Your task to perform on an android device: Open Google Maps Image 0: 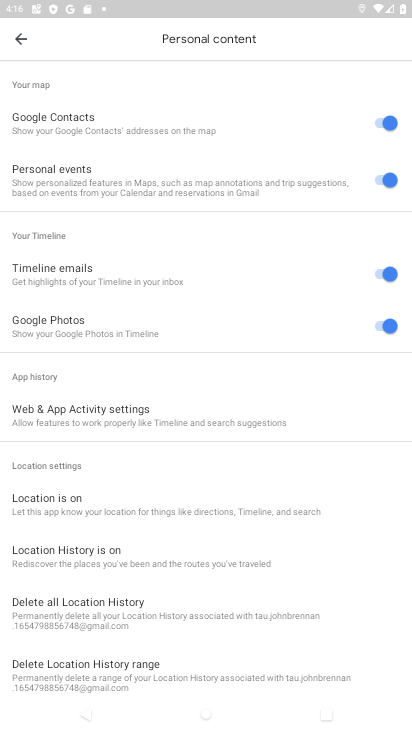
Step 0: press home button
Your task to perform on an android device: Open Google Maps Image 1: 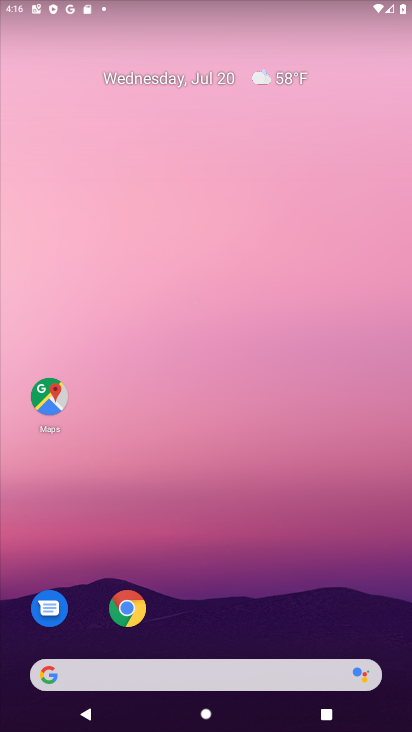
Step 1: click (60, 402)
Your task to perform on an android device: Open Google Maps Image 2: 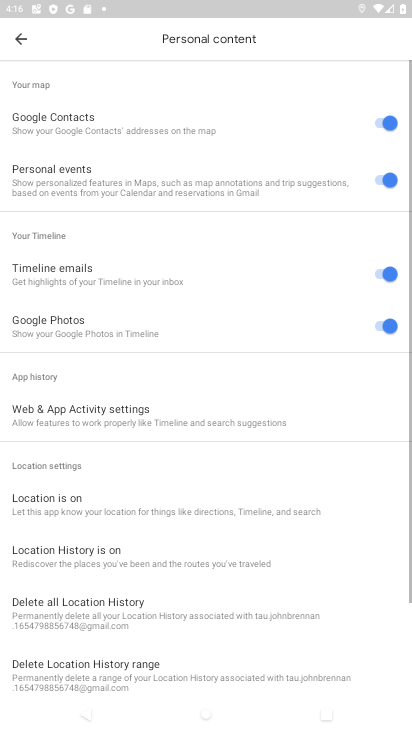
Step 2: click (19, 37)
Your task to perform on an android device: Open Google Maps Image 3: 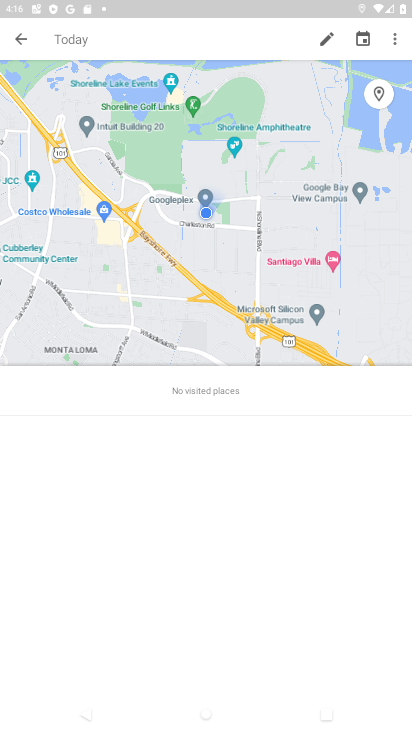
Step 3: click (21, 36)
Your task to perform on an android device: Open Google Maps Image 4: 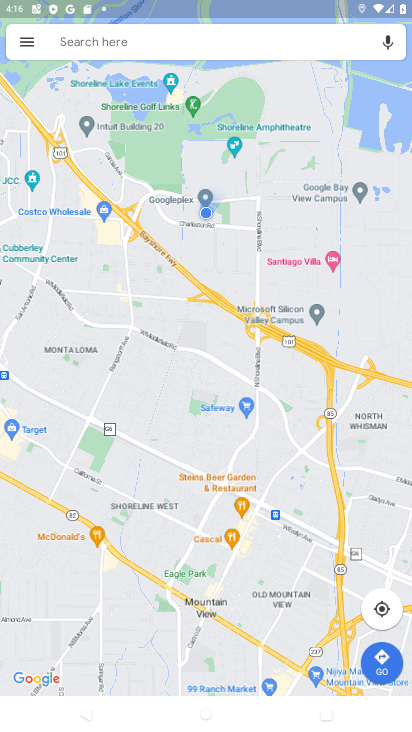
Step 4: task complete